Your task to perform on an android device: See recent photos Image 0: 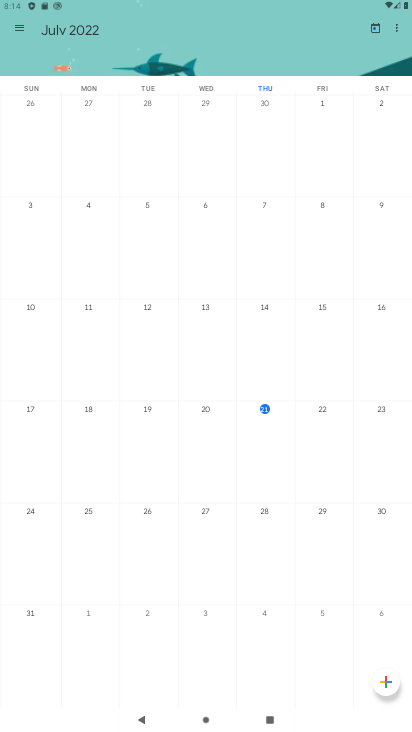
Step 0: press home button
Your task to perform on an android device: See recent photos Image 1: 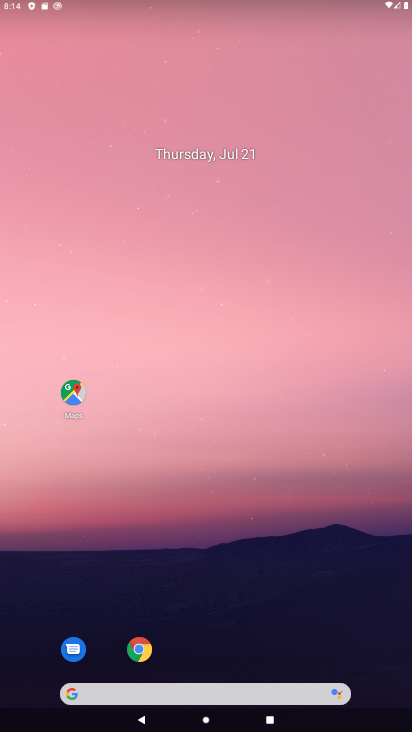
Step 1: drag from (208, 669) to (245, 58)
Your task to perform on an android device: See recent photos Image 2: 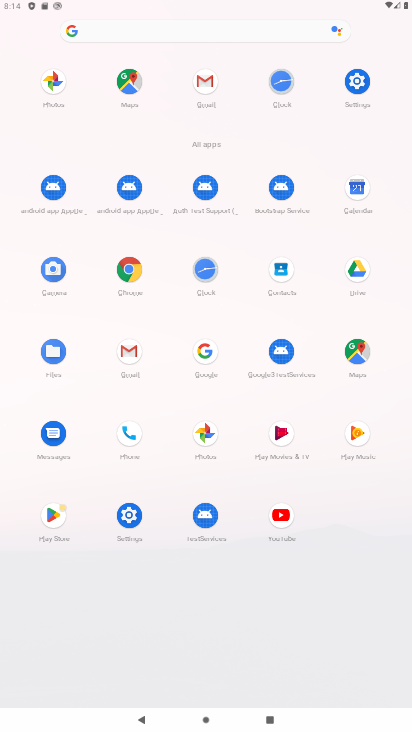
Step 2: click (203, 432)
Your task to perform on an android device: See recent photos Image 3: 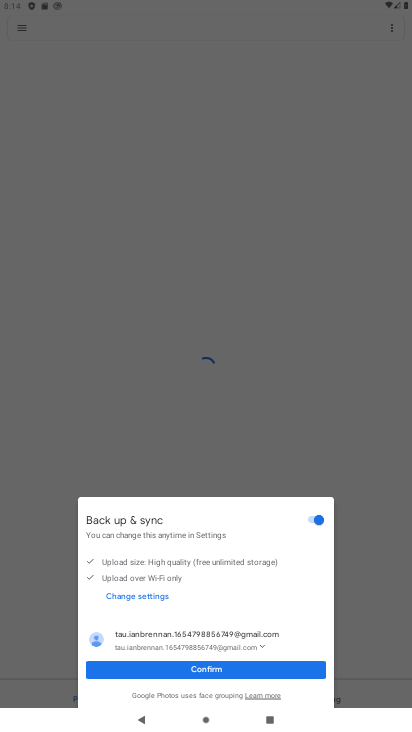
Step 3: click (189, 666)
Your task to perform on an android device: See recent photos Image 4: 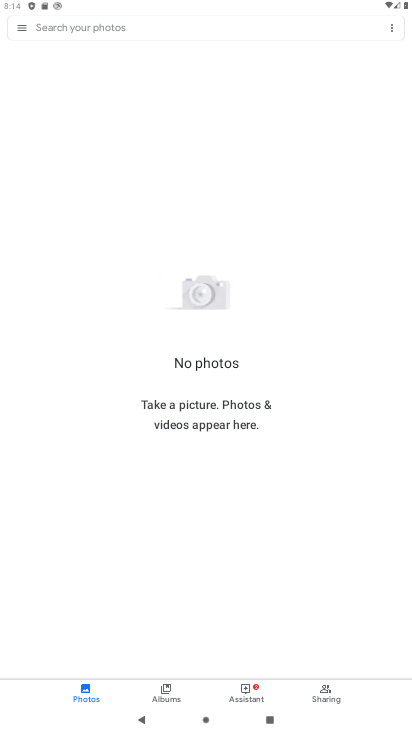
Step 4: task complete